Your task to perform on an android device: Open privacy settings Image 0: 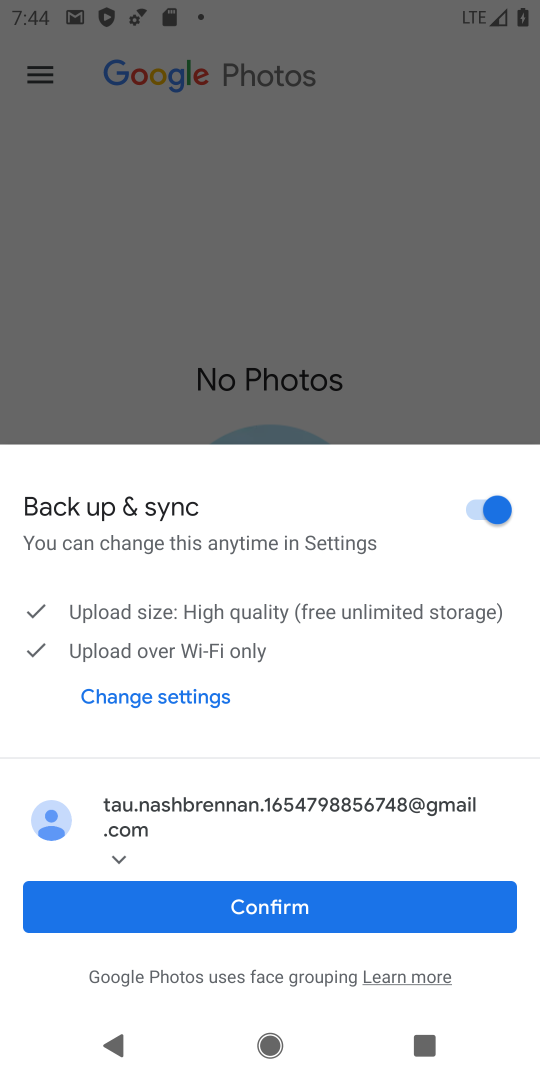
Step 0: press home button
Your task to perform on an android device: Open privacy settings Image 1: 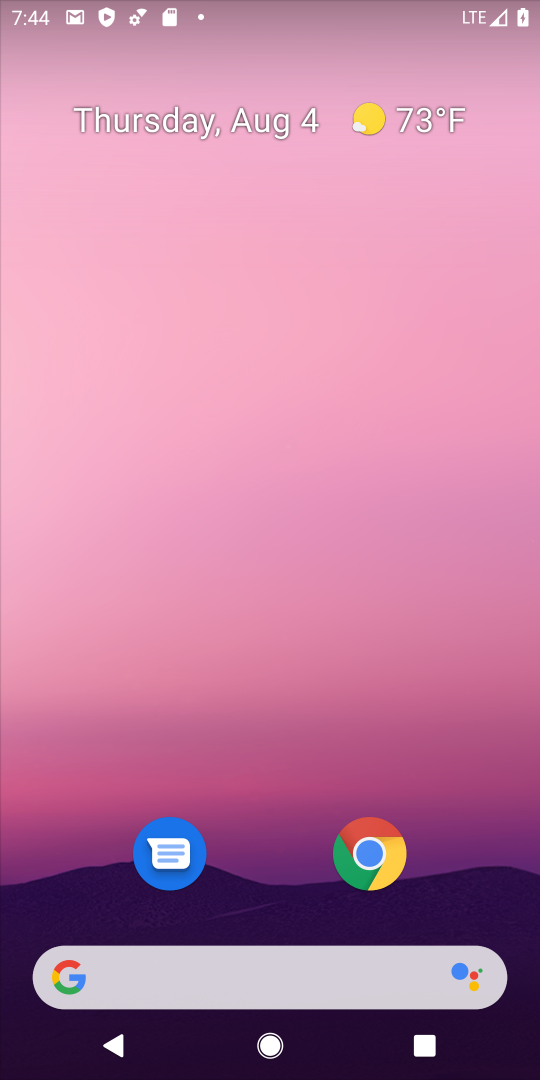
Step 1: drag from (289, 905) to (266, 490)
Your task to perform on an android device: Open privacy settings Image 2: 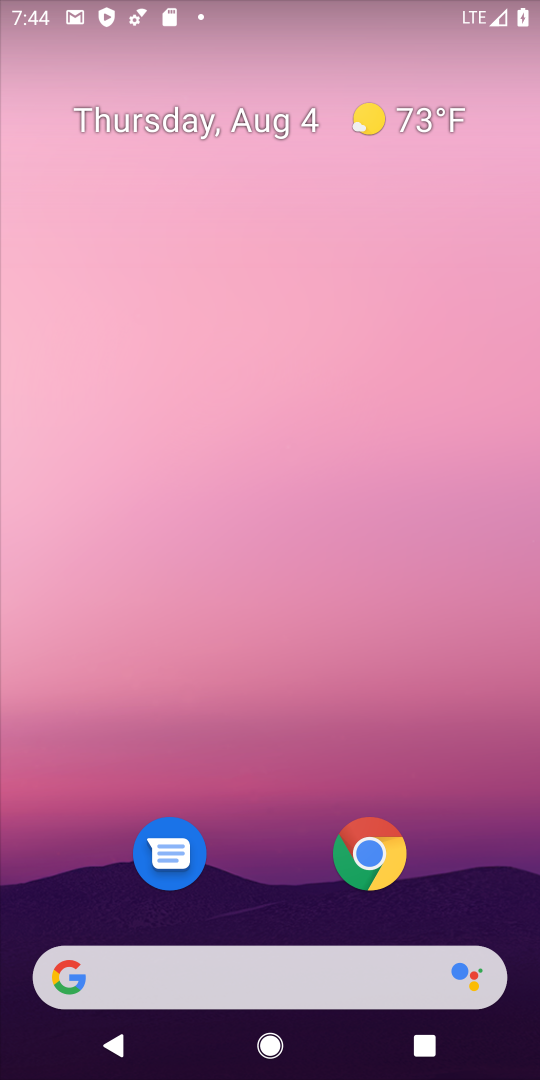
Step 2: drag from (260, 933) to (297, 393)
Your task to perform on an android device: Open privacy settings Image 3: 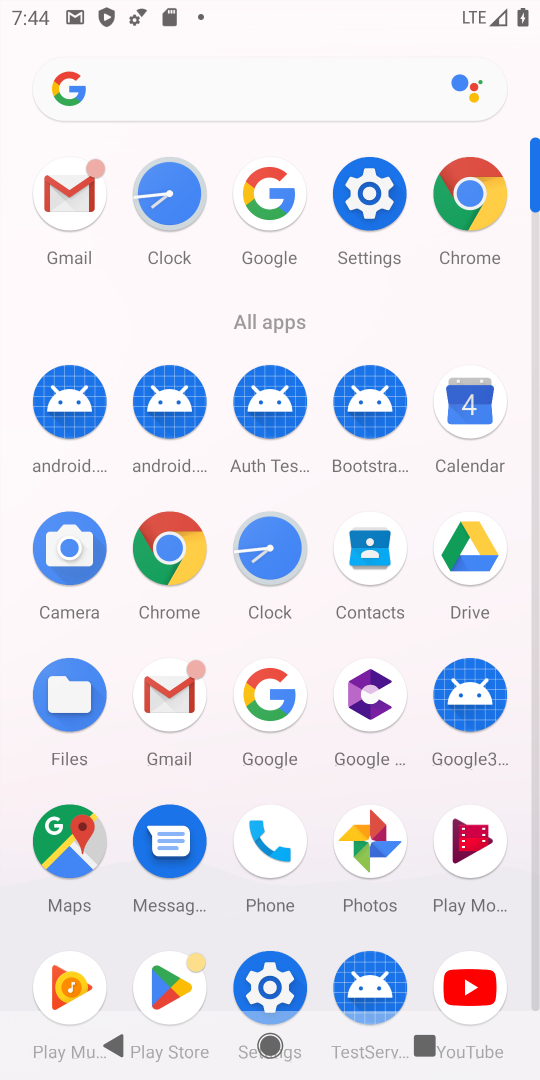
Step 3: click (374, 199)
Your task to perform on an android device: Open privacy settings Image 4: 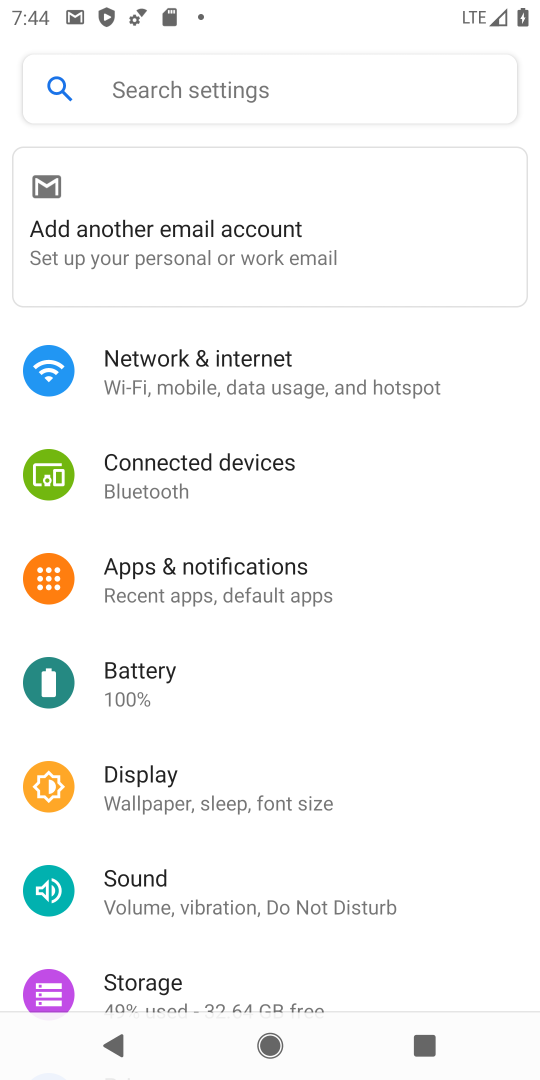
Step 4: drag from (174, 946) to (174, 529)
Your task to perform on an android device: Open privacy settings Image 5: 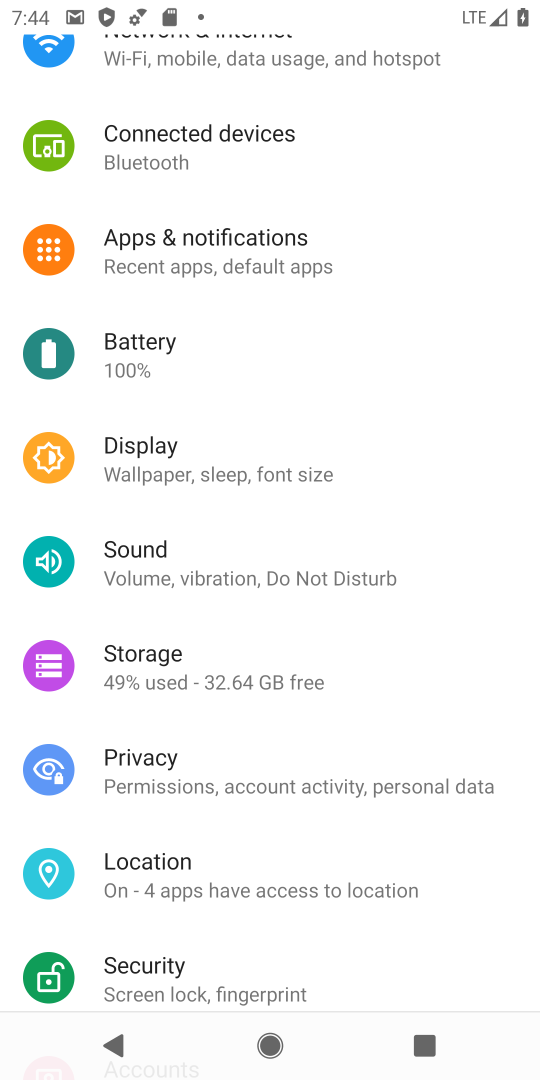
Step 5: click (147, 795)
Your task to perform on an android device: Open privacy settings Image 6: 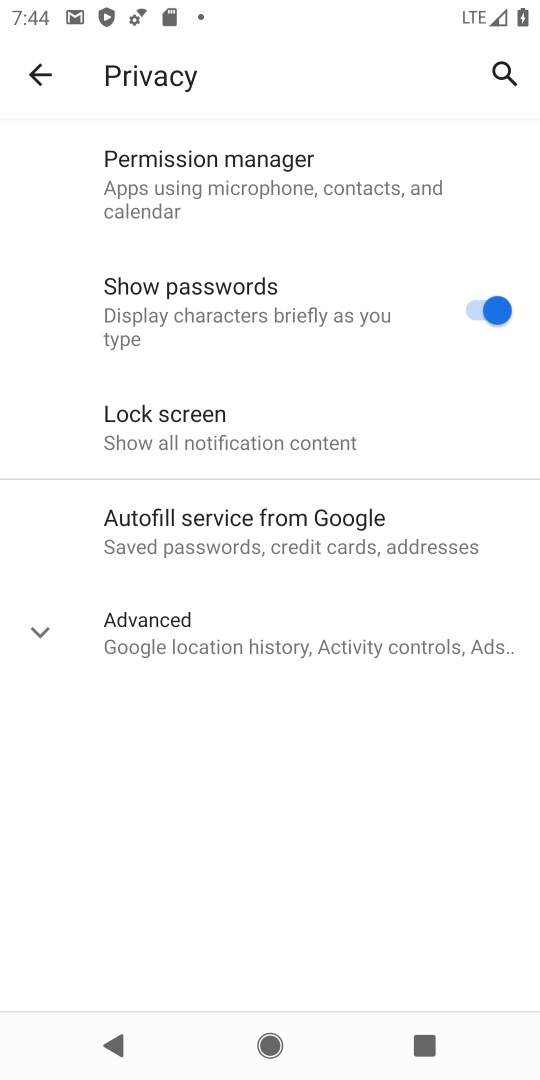
Step 6: click (209, 618)
Your task to perform on an android device: Open privacy settings Image 7: 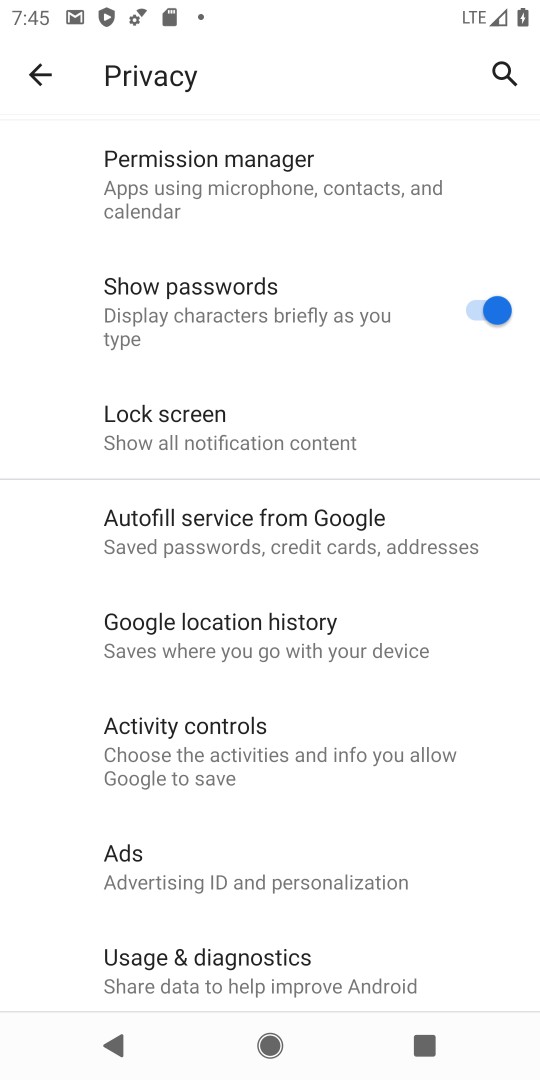
Step 7: task complete